Your task to perform on an android device: Search for seafood restaurants on Google Maps Image 0: 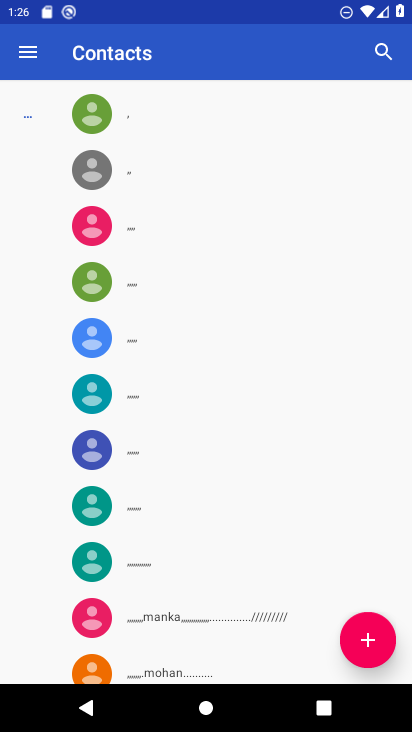
Step 0: press home button
Your task to perform on an android device: Search for seafood restaurants on Google Maps Image 1: 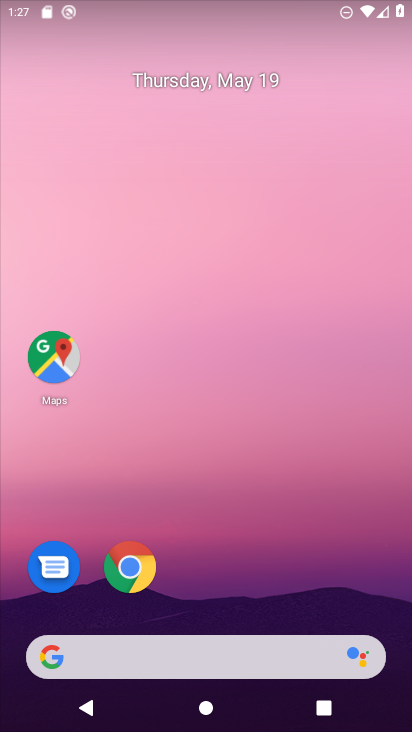
Step 1: click (60, 361)
Your task to perform on an android device: Search for seafood restaurants on Google Maps Image 2: 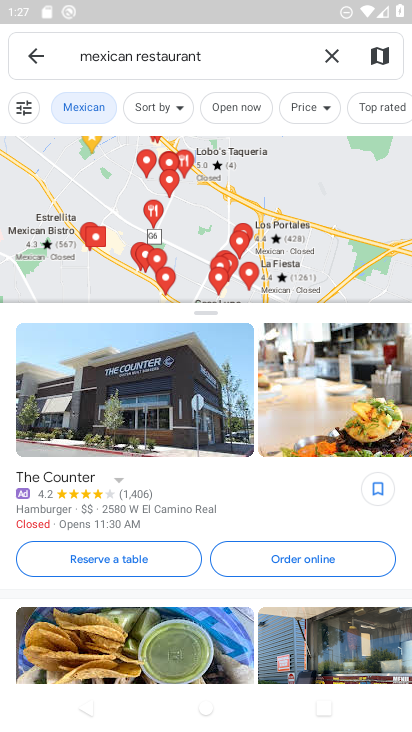
Step 2: click (325, 44)
Your task to perform on an android device: Search for seafood restaurants on Google Maps Image 3: 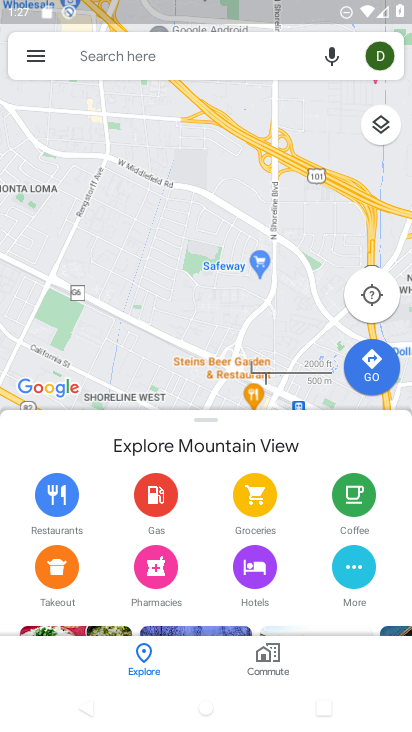
Step 3: click (186, 62)
Your task to perform on an android device: Search for seafood restaurants on Google Maps Image 4: 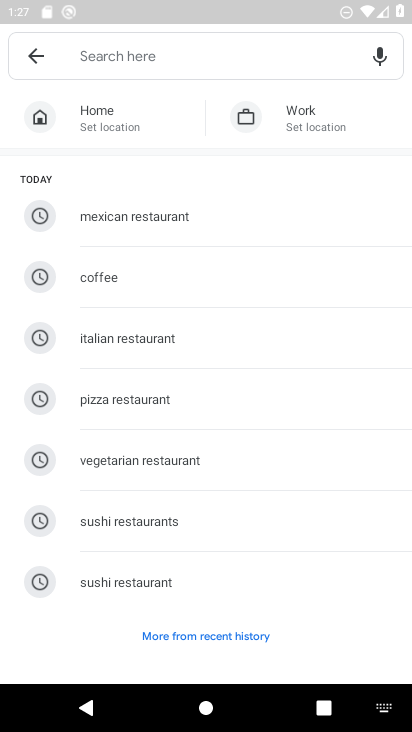
Step 4: click (154, 47)
Your task to perform on an android device: Search for seafood restaurants on Google Maps Image 5: 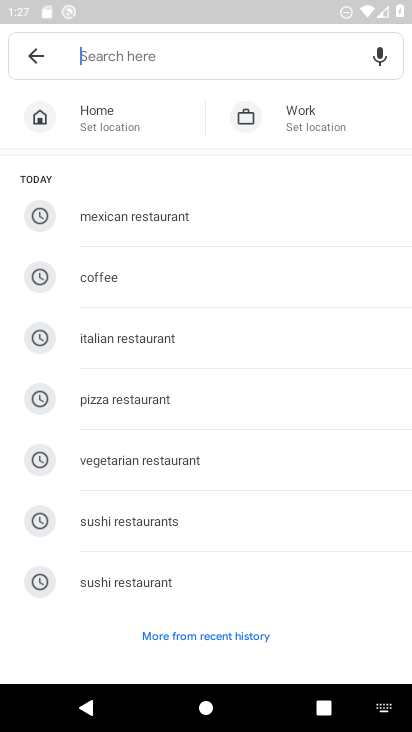
Step 5: click (154, 47)
Your task to perform on an android device: Search for seafood restaurants on Google Maps Image 6: 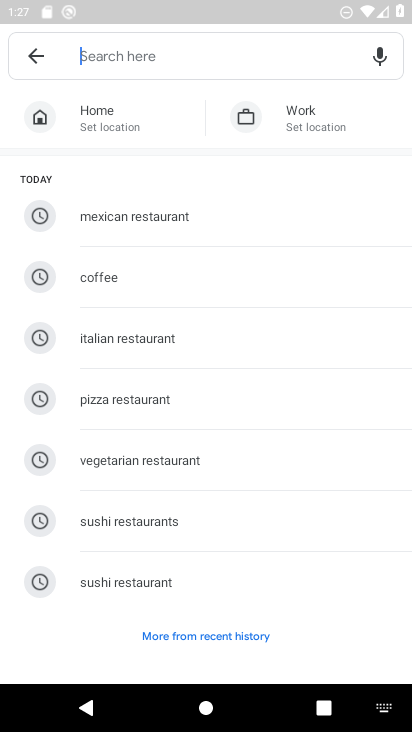
Step 6: click (154, 47)
Your task to perform on an android device: Search for seafood restaurants on Google Maps Image 7: 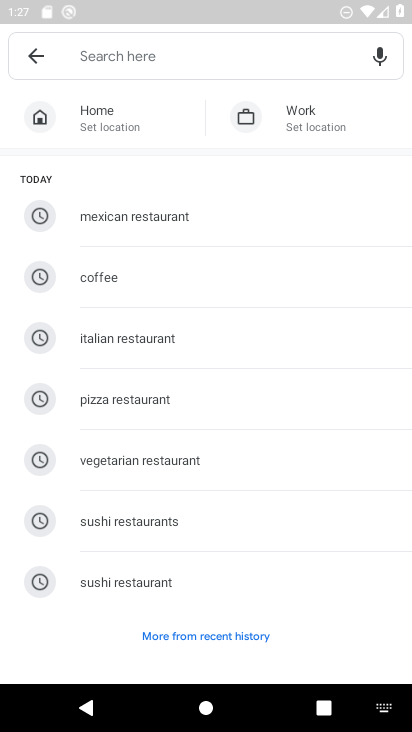
Step 7: click (115, 58)
Your task to perform on an android device: Search for seafood restaurants on Google Maps Image 8: 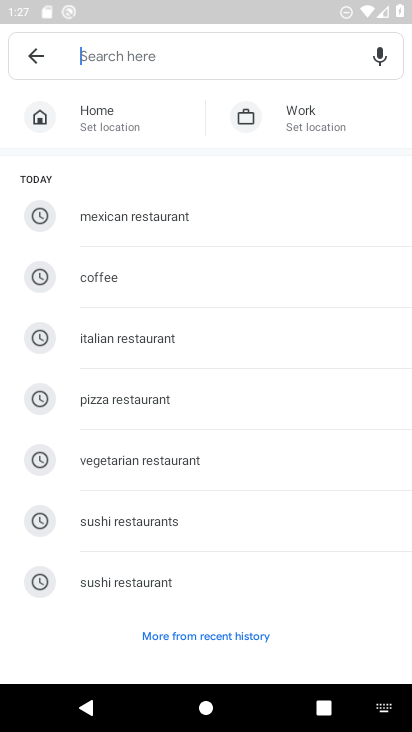
Step 8: click (115, 58)
Your task to perform on an android device: Search for seafood restaurants on Google Maps Image 9: 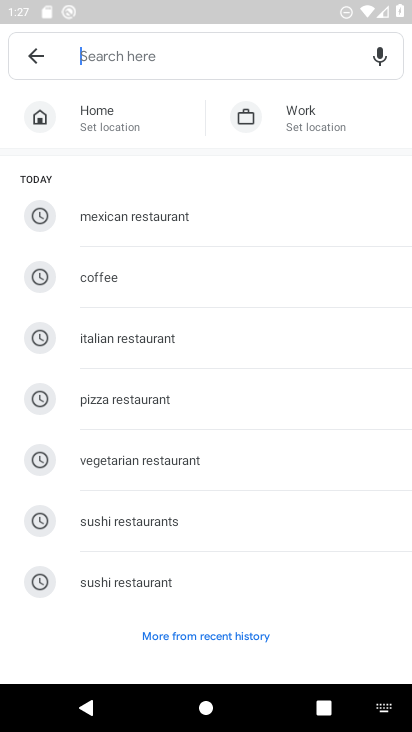
Step 9: click (115, 58)
Your task to perform on an android device: Search for seafood restaurants on Google Maps Image 10: 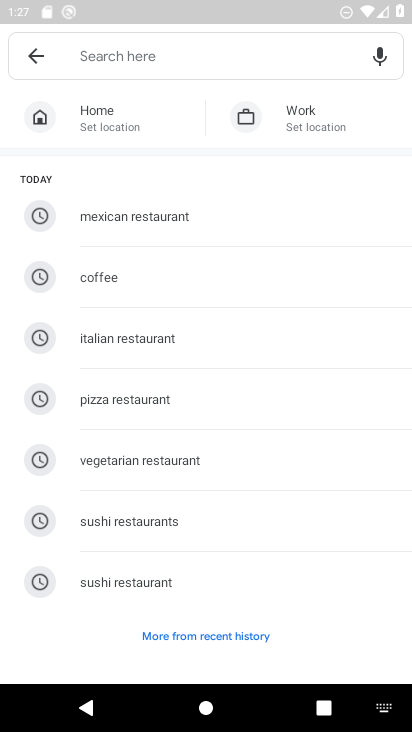
Step 10: click (122, 56)
Your task to perform on an android device: Search for seafood restaurants on Google Maps Image 11: 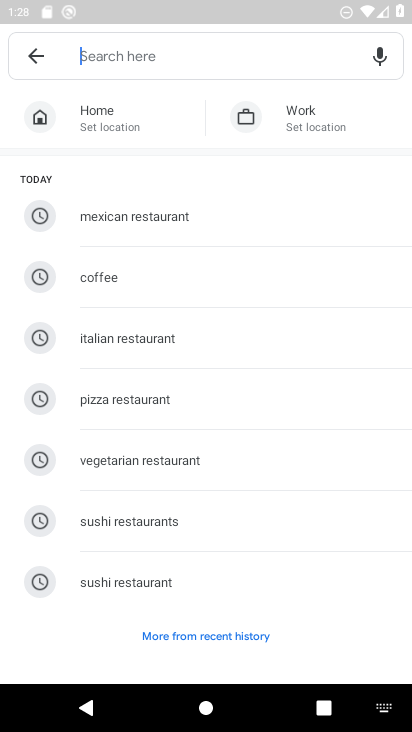
Step 11: type "seafood restaurant"
Your task to perform on an android device: Search for seafood restaurants on Google Maps Image 12: 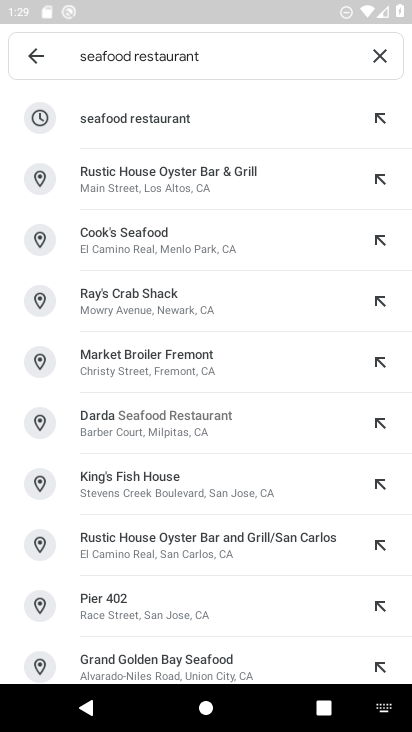
Step 12: click (86, 486)
Your task to perform on an android device: Search for seafood restaurants on Google Maps Image 13: 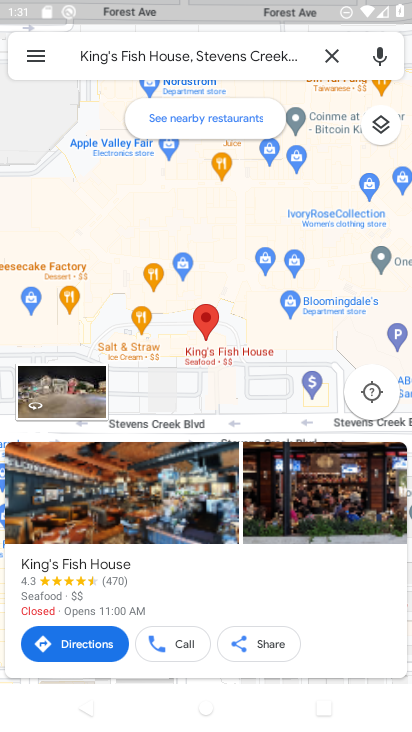
Step 13: press home button
Your task to perform on an android device: Search for seafood restaurants on Google Maps Image 14: 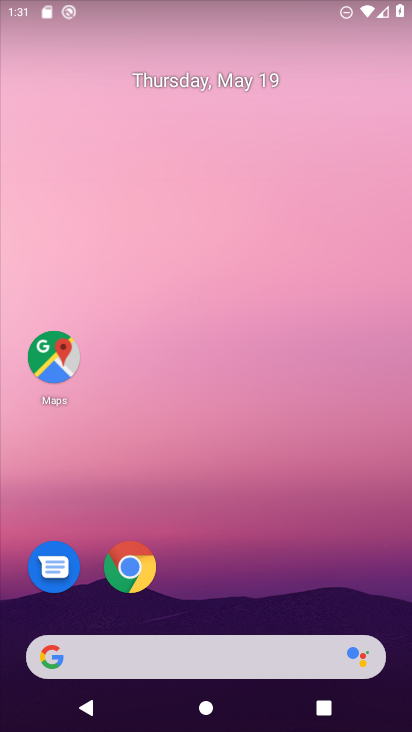
Step 14: click (60, 363)
Your task to perform on an android device: Search for seafood restaurants on Google Maps Image 15: 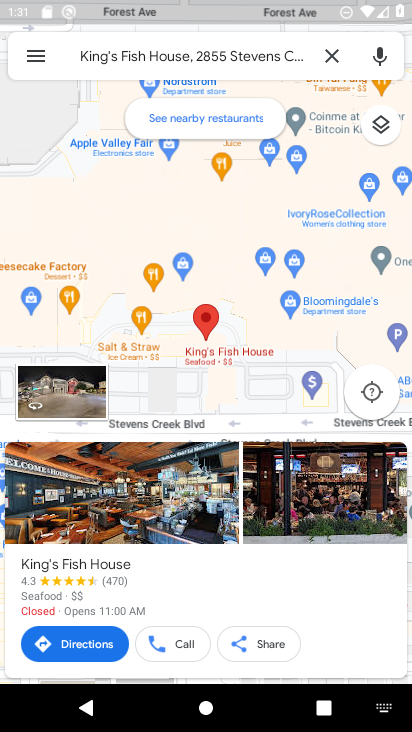
Step 15: click (325, 56)
Your task to perform on an android device: Search for seafood restaurants on Google Maps Image 16: 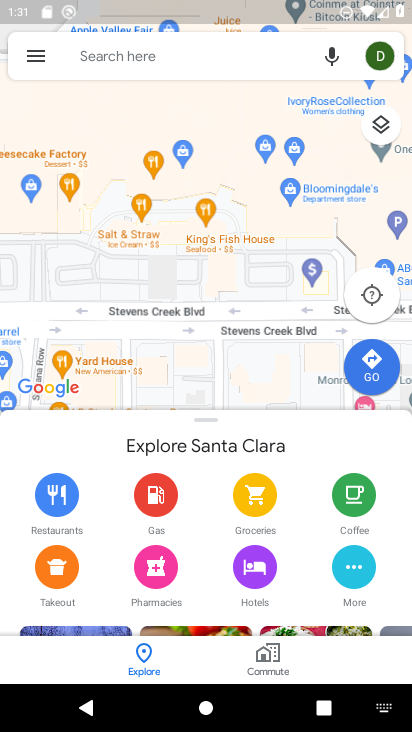
Step 16: click (110, 62)
Your task to perform on an android device: Search for seafood restaurants on Google Maps Image 17: 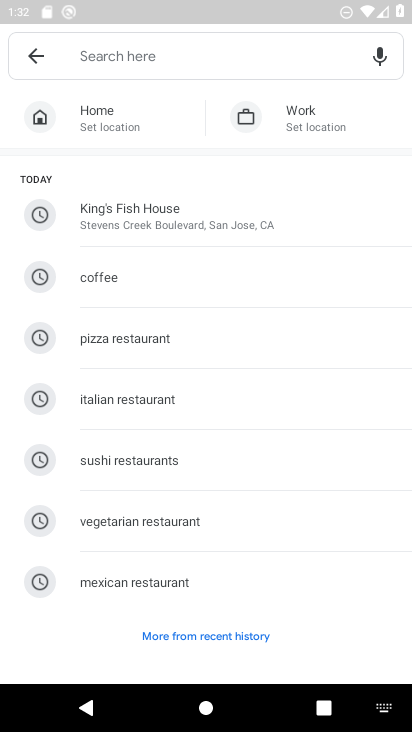
Step 17: type "Seafood restaurants"
Your task to perform on an android device: Search for seafood restaurants on Google Maps Image 18: 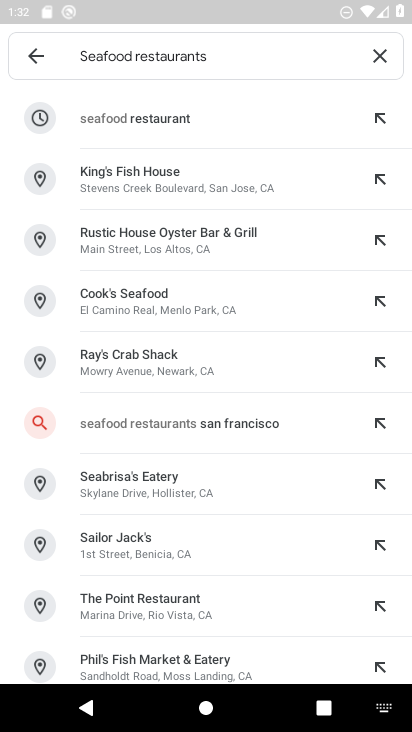
Step 18: click (209, 113)
Your task to perform on an android device: Search for seafood restaurants on Google Maps Image 19: 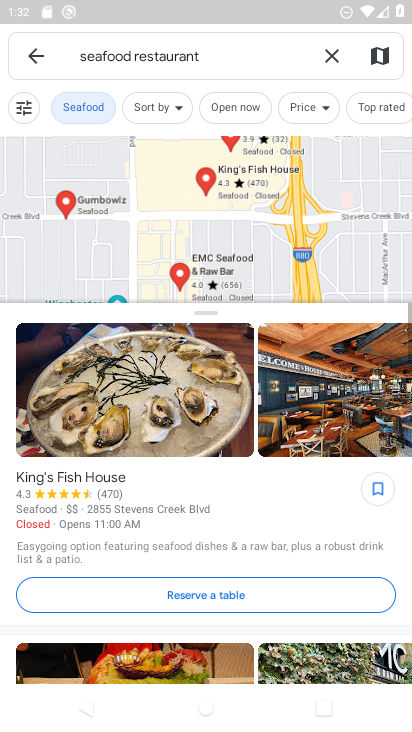
Step 19: drag from (270, 539) to (193, 265)
Your task to perform on an android device: Search for seafood restaurants on Google Maps Image 20: 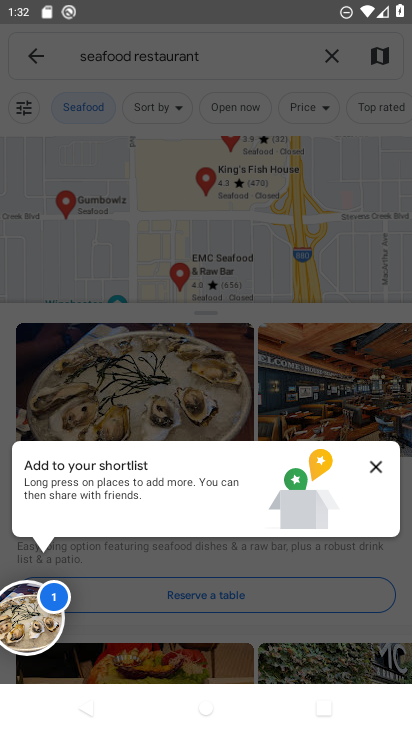
Step 20: click (370, 466)
Your task to perform on an android device: Search for seafood restaurants on Google Maps Image 21: 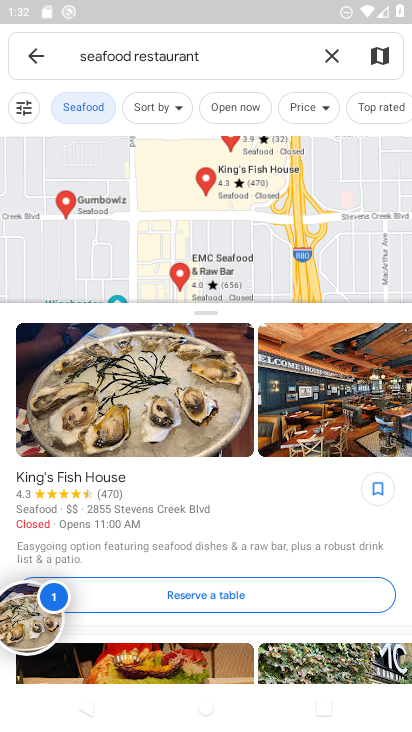
Step 21: task complete